Your task to perform on an android device: add a contact Image 0: 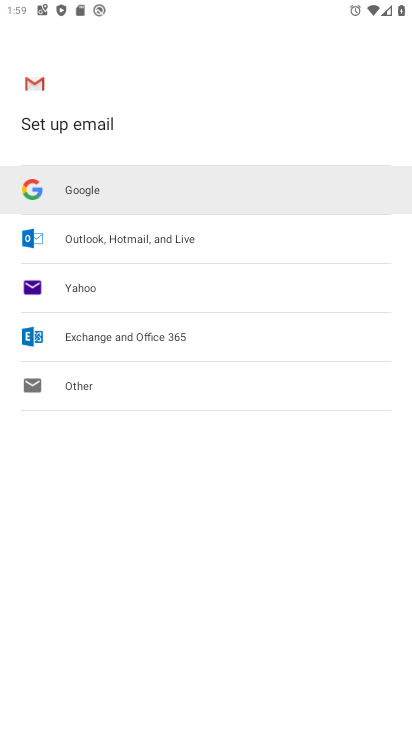
Step 0: press home button
Your task to perform on an android device: add a contact Image 1: 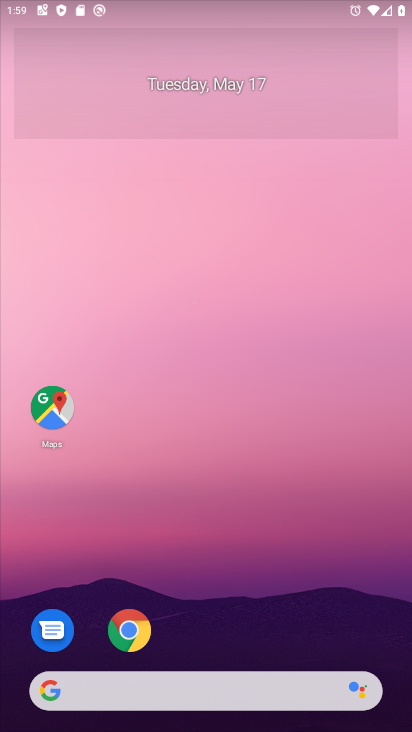
Step 1: drag from (355, 628) to (368, 89)
Your task to perform on an android device: add a contact Image 2: 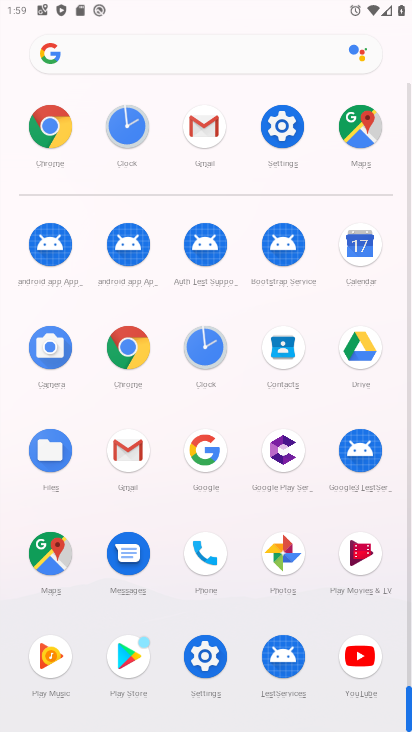
Step 2: click (286, 354)
Your task to perform on an android device: add a contact Image 3: 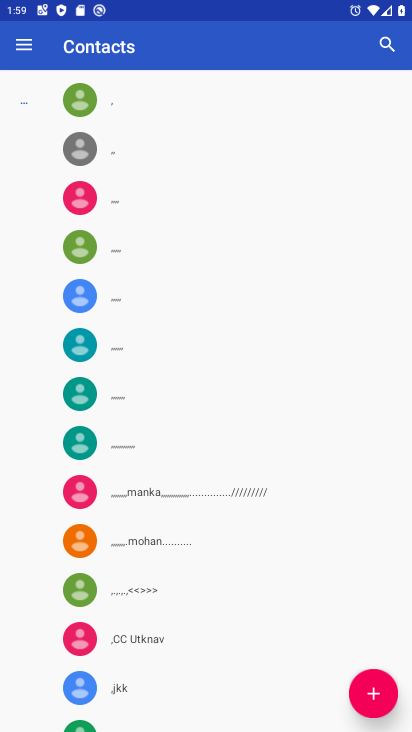
Step 3: click (379, 707)
Your task to perform on an android device: add a contact Image 4: 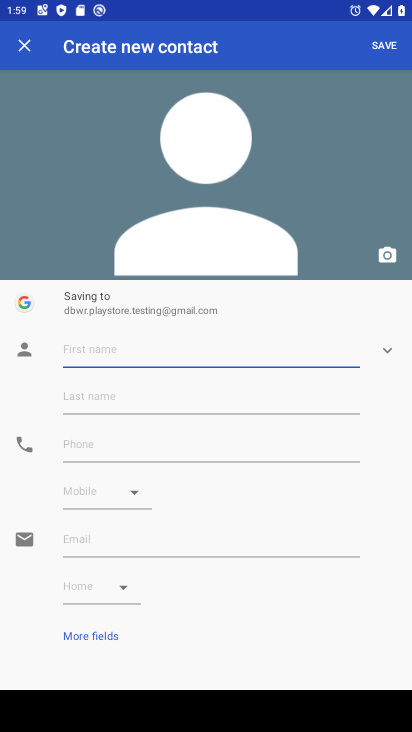
Step 4: click (241, 359)
Your task to perform on an android device: add a contact Image 5: 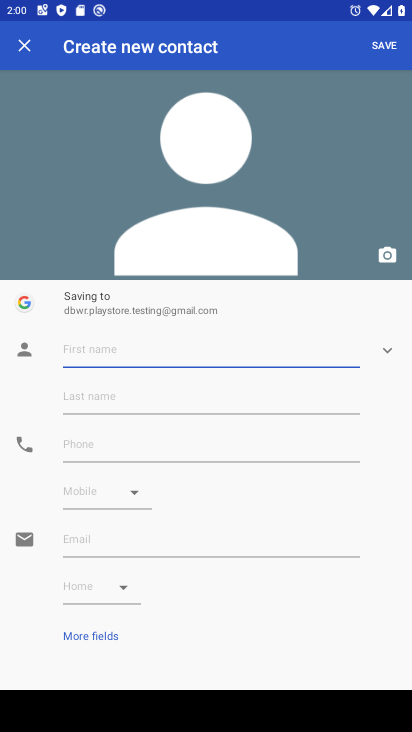
Step 5: type "ramisha"
Your task to perform on an android device: add a contact Image 6: 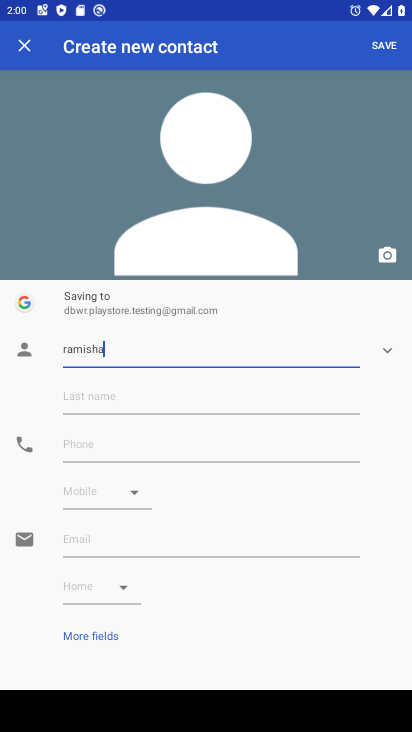
Step 6: click (132, 458)
Your task to perform on an android device: add a contact Image 7: 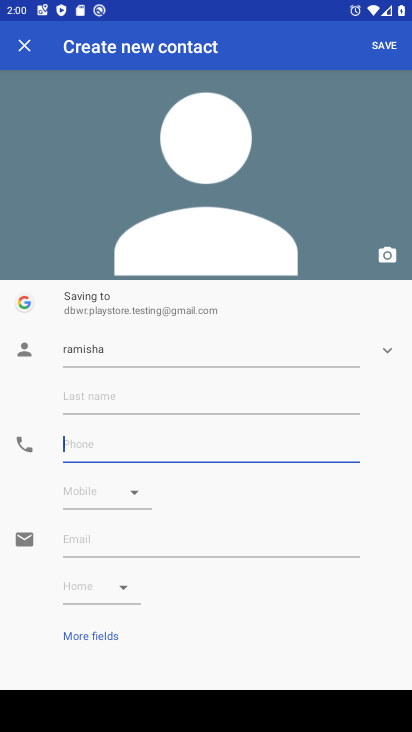
Step 7: type "980298032098"
Your task to perform on an android device: add a contact Image 8: 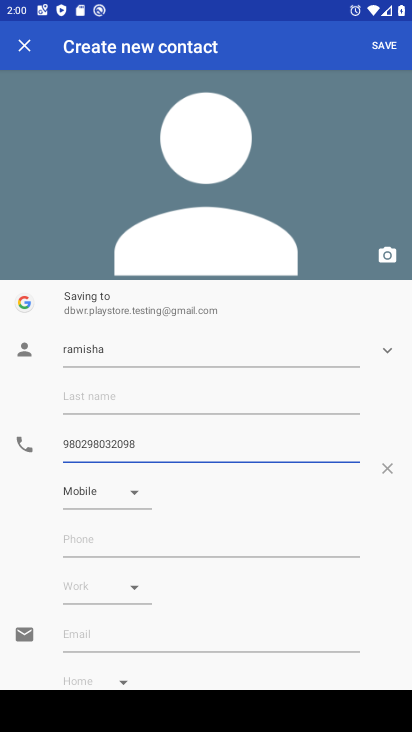
Step 8: click (387, 40)
Your task to perform on an android device: add a contact Image 9: 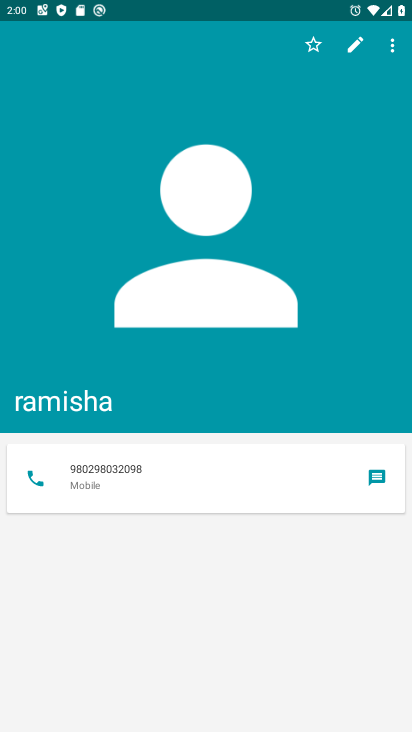
Step 9: task complete